Your task to perform on an android device: Go to Yahoo.com Image 0: 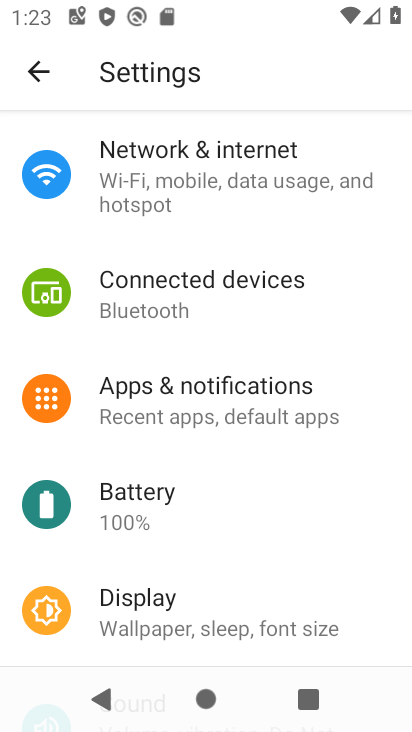
Step 0: press home button
Your task to perform on an android device: Go to Yahoo.com Image 1: 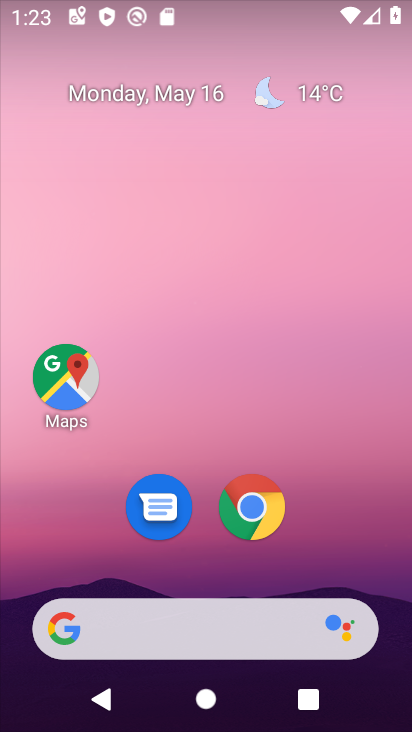
Step 1: drag from (210, 533) to (245, 236)
Your task to perform on an android device: Go to Yahoo.com Image 2: 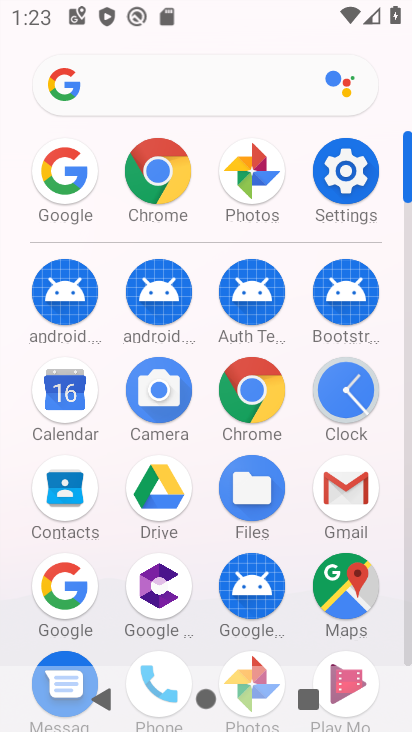
Step 2: click (258, 388)
Your task to perform on an android device: Go to Yahoo.com Image 3: 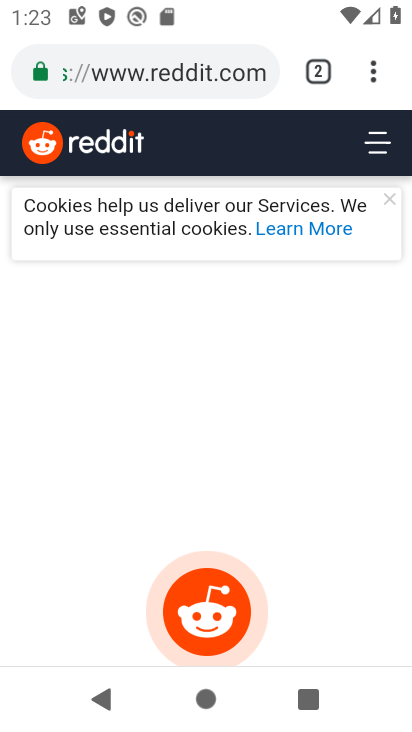
Step 3: click (328, 81)
Your task to perform on an android device: Go to Yahoo.com Image 4: 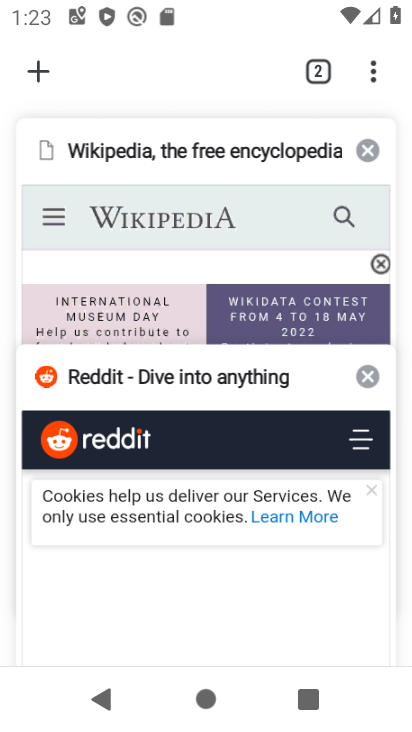
Step 4: click (43, 70)
Your task to perform on an android device: Go to Yahoo.com Image 5: 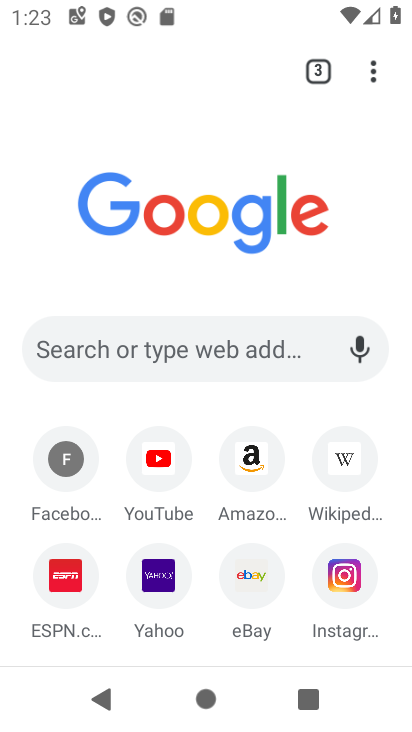
Step 5: click (154, 586)
Your task to perform on an android device: Go to Yahoo.com Image 6: 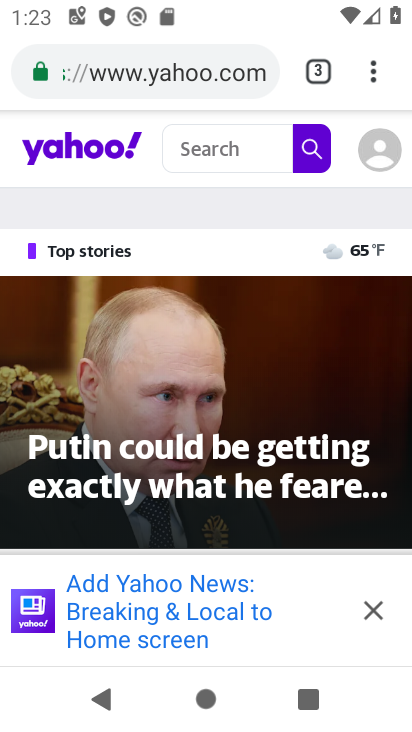
Step 6: task complete